Your task to perform on an android device: turn on notifications settings in the gmail app Image 0: 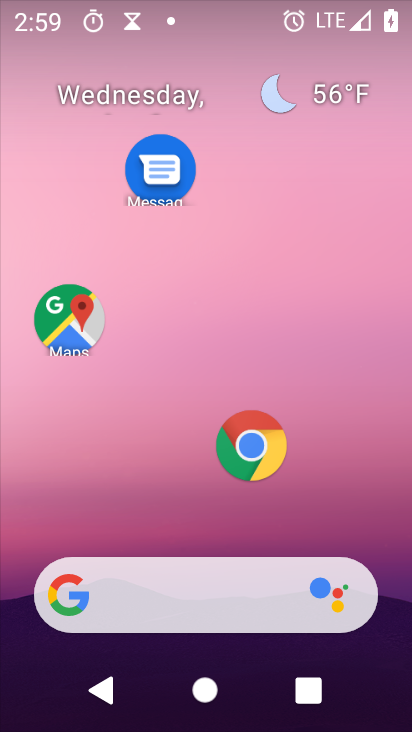
Step 0: drag from (170, 515) to (214, 134)
Your task to perform on an android device: turn on notifications settings in the gmail app Image 1: 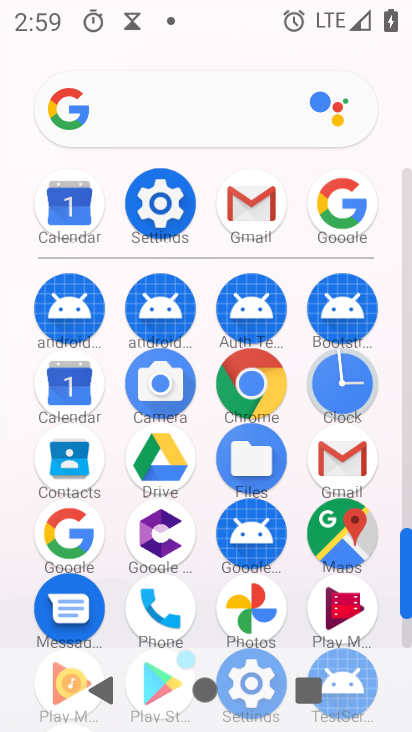
Step 1: click (339, 468)
Your task to perform on an android device: turn on notifications settings in the gmail app Image 2: 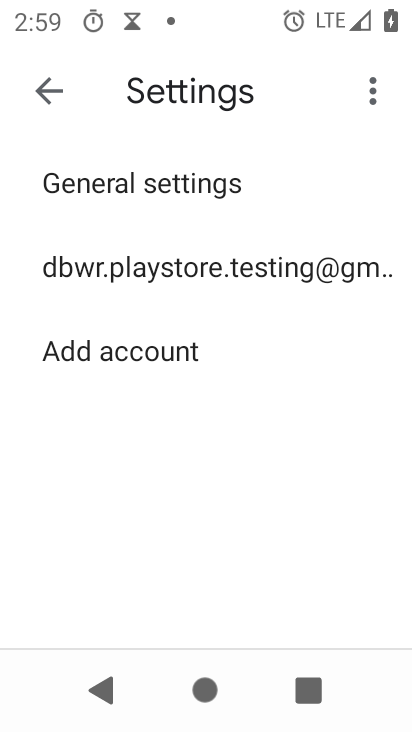
Step 2: click (242, 275)
Your task to perform on an android device: turn on notifications settings in the gmail app Image 3: 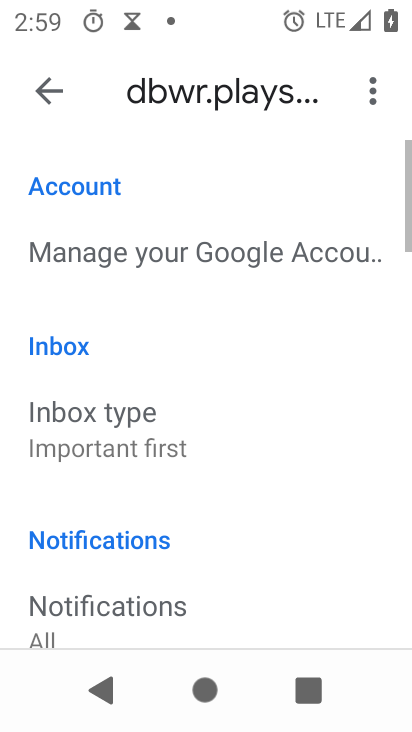
Step 3: drag from (247, 544) to (198, 91)
Your task to perform on an android device: turn on notifications settings in the gmail app Image 4: 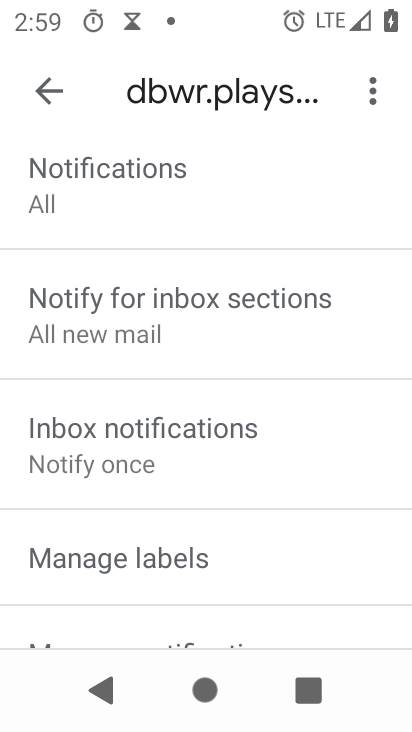
Step 4: drag from (176, 528) to (250, 36)
Your task to perform on an android device: turn on notifications settings in the gmail app Image 5: 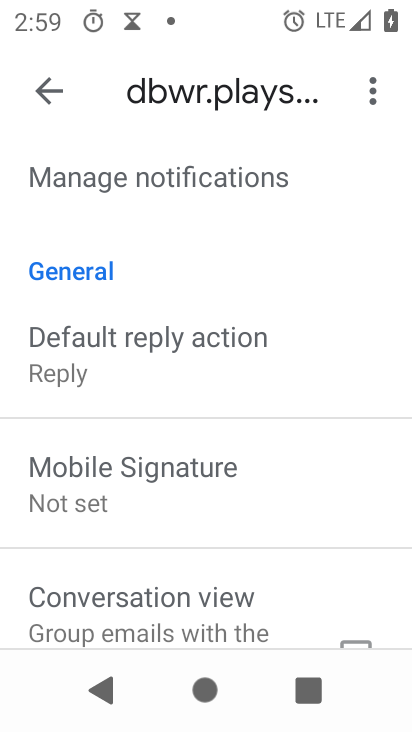
Step 5: click (193, 190)
Your task to perform on an android device: turn on notifications settings in the gmail app Image 6: 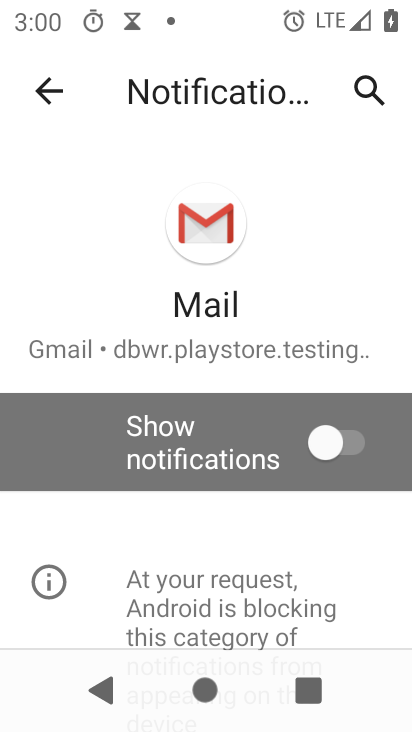
Step 6: click (323, 456)
Your task to perform on an android device: turn on notifications settings in the gmail app Image 7: 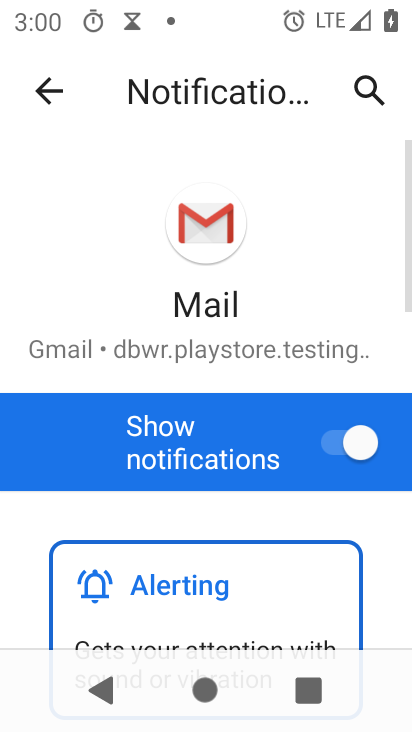
Step 7: task complete